Your task to perform on an android device: add a contact in the contacts app Image 0: 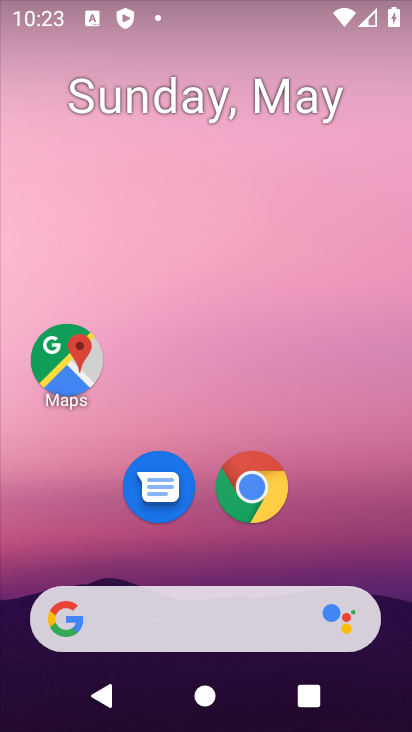
Step 0: drag from (260, 566) to (404, 430)
Your task to perform on an android device: add a contact in the contacts app Image 1: 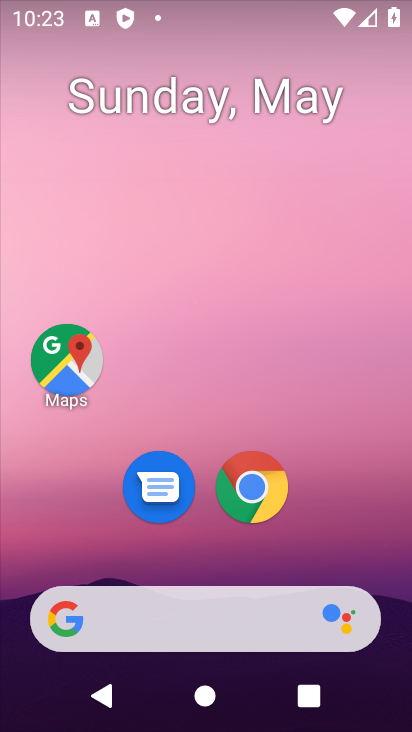
Step 1: drag from (147, 560) to (217, 29)
Your task to perform on an android device: add a contact in the contacts app Image 2: 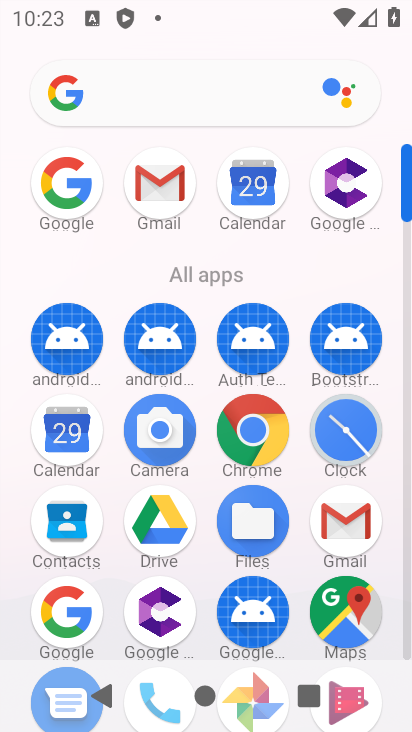
Step 2: drag from (119, 543) to (135, 384)
Your task to perform on an android device: add a contact in the contacts app Image 3: 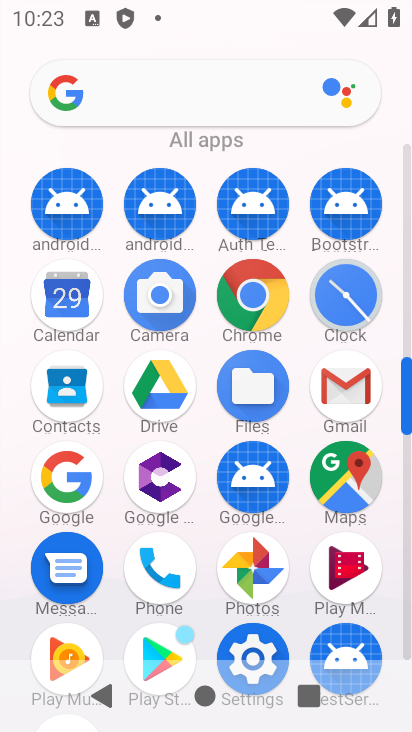
Step 3: click (80, 385)
Your task to perform on an android device: add a contact in the contacts app Image 4: 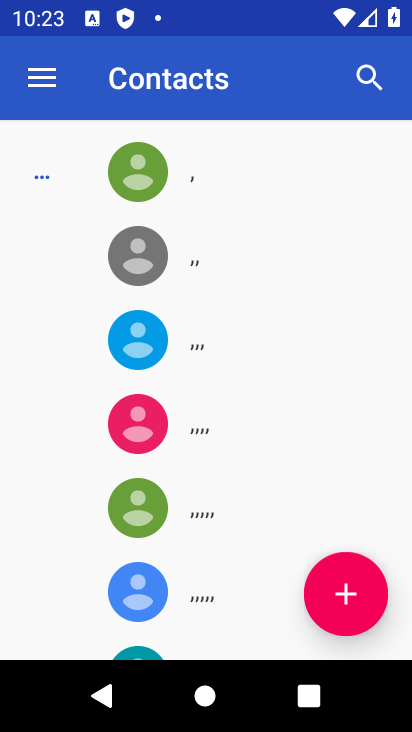
Step 4: click (363, 594)
Your task to perform on an android device: add a contact in the contacts app Image 5: 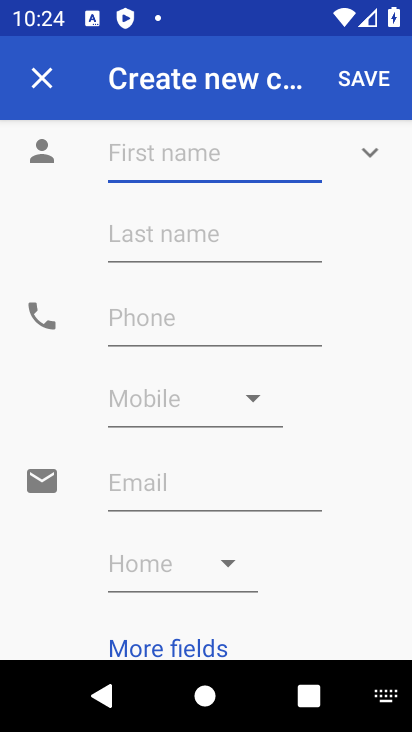
Step 5: type "lkjvghb"
Your task to perform on an android device: add a contact in the contacts app Image 6: 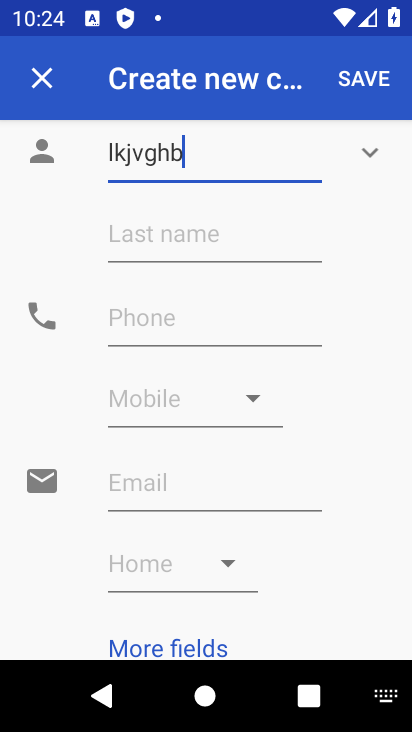
Step 6: click (228, 321)
Your task to perform on an android device: add a contact in the contacts app Image 7: 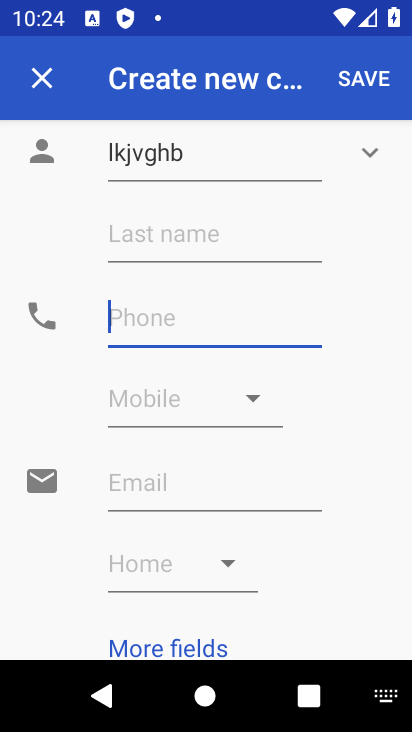
Step 7: type "-09768547"
Your task to perform on an android device: add a contact in the contacts app Image 8: 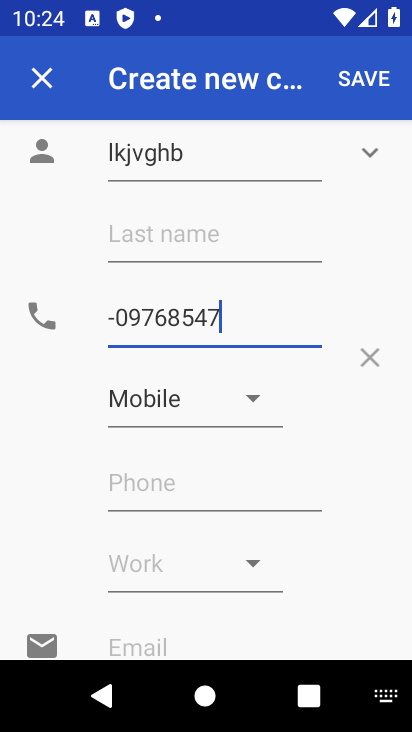
Step 8: click (360, 90)
Your task to perform on an android device: add a contact in the contacts app Image 9: 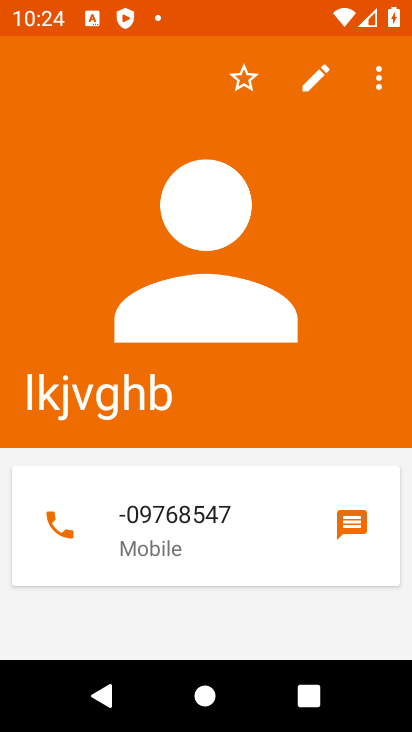
Step 9: task complete